Your task to perform on an android device: Open Youtube and go to the subscriptions tab Image 0: 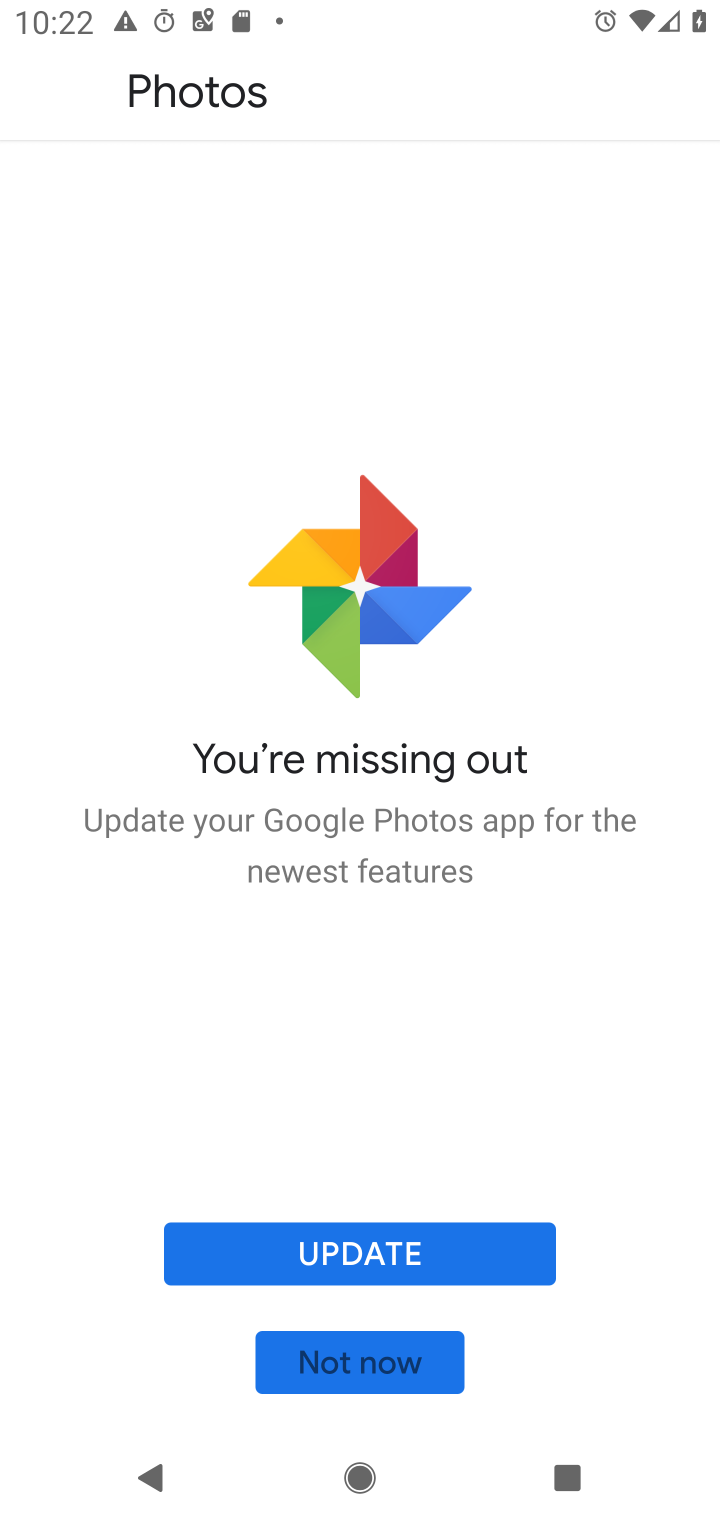
Step 0: press home button
Your task to perform on an android device: Open Youtube and go to the subscriptions tab Image 1: 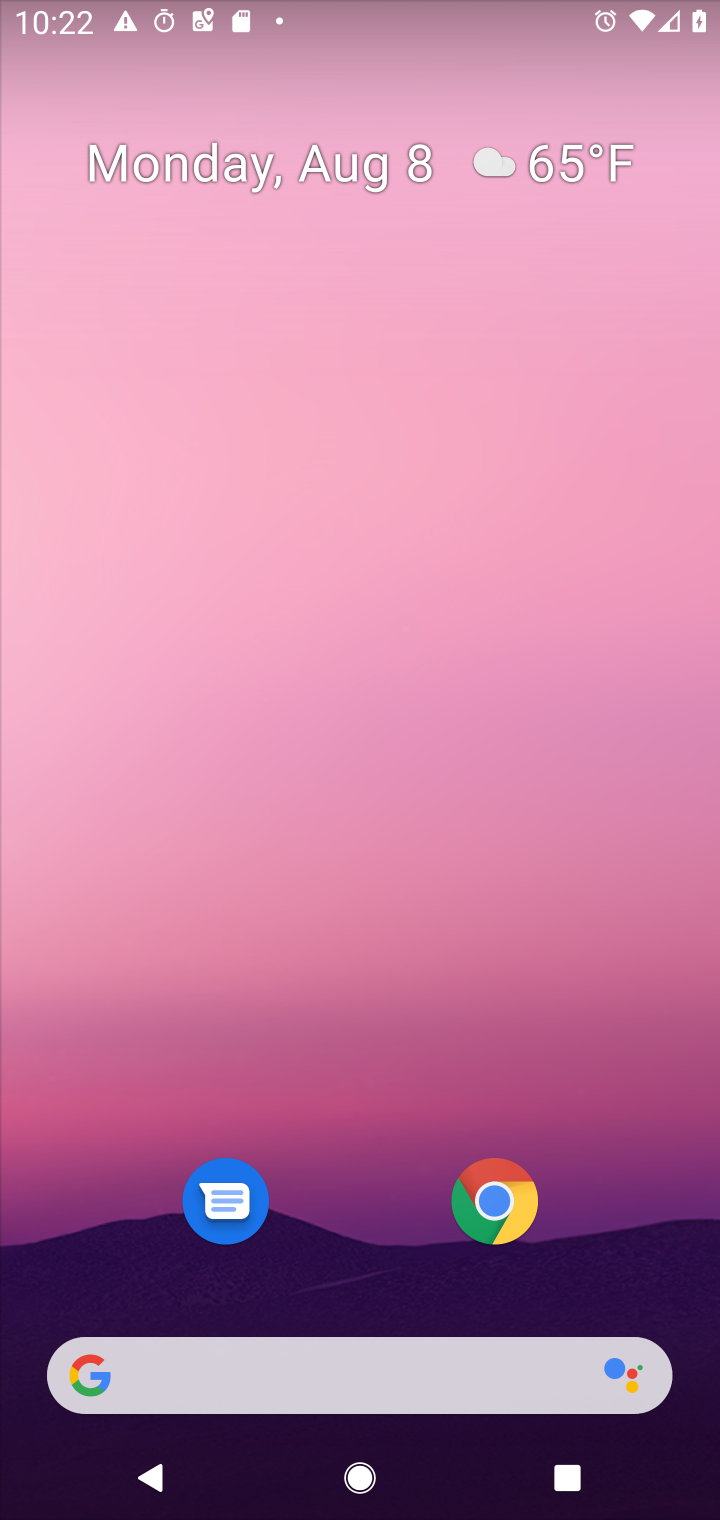
Step 1: drag from (588, 1272) to (621, 364)
Your task to perform on an android device: Open Youtube and go to the subscriptions tab Image 2: 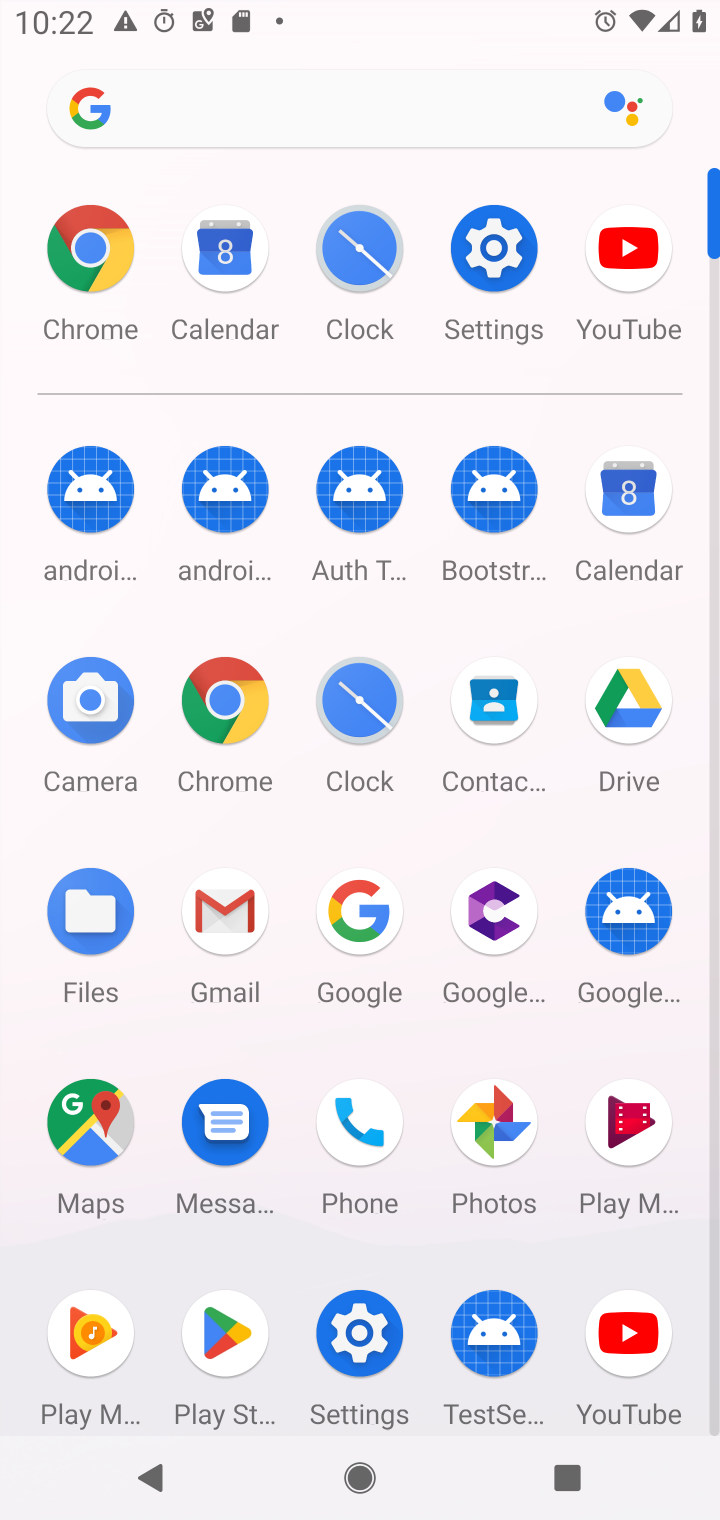
Step 2: click (632, 1322)
Your task to perform on an android device: Open Youtube and go to the subscriptions tab Image 3: 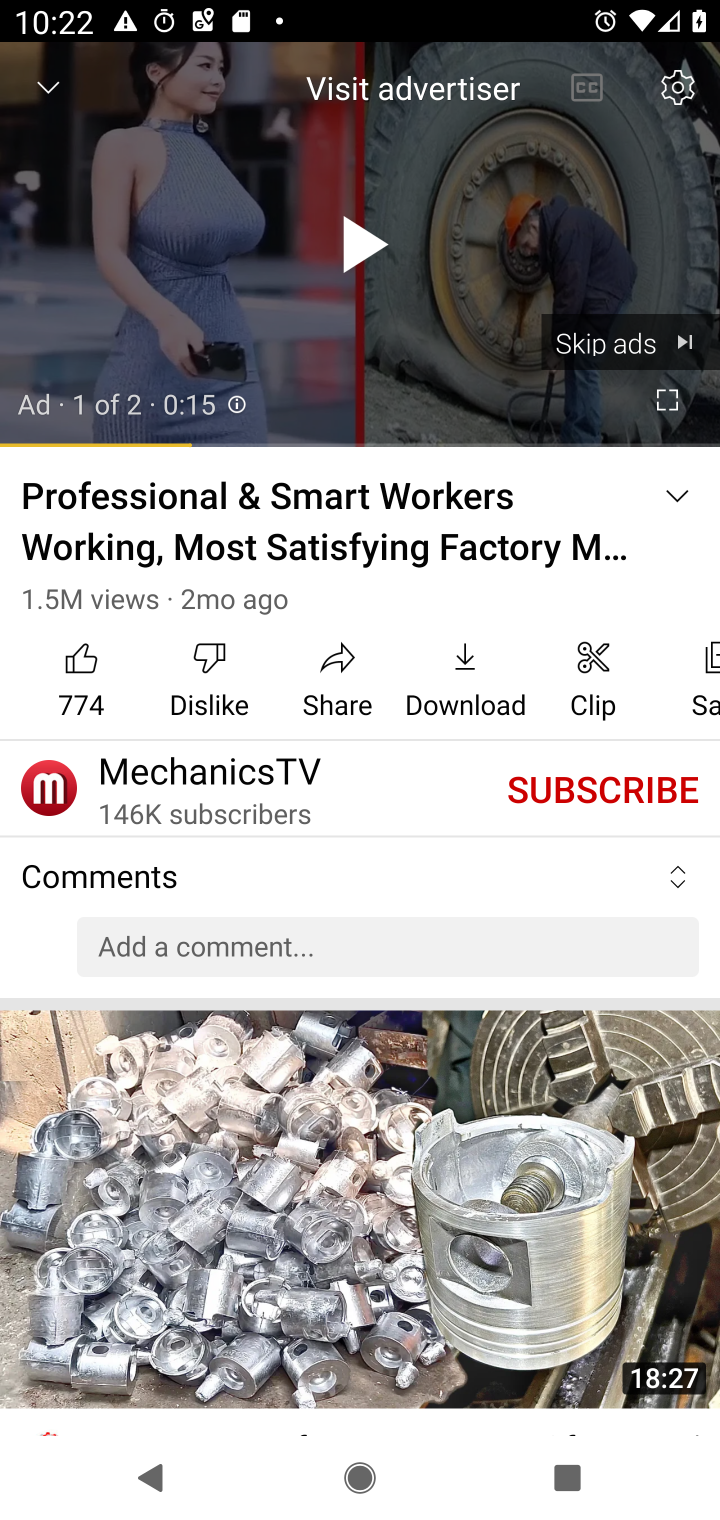
Step 3: press back button
Your task to perform on an android device: Open Youtube and go to the subscriptions tab Image 4: 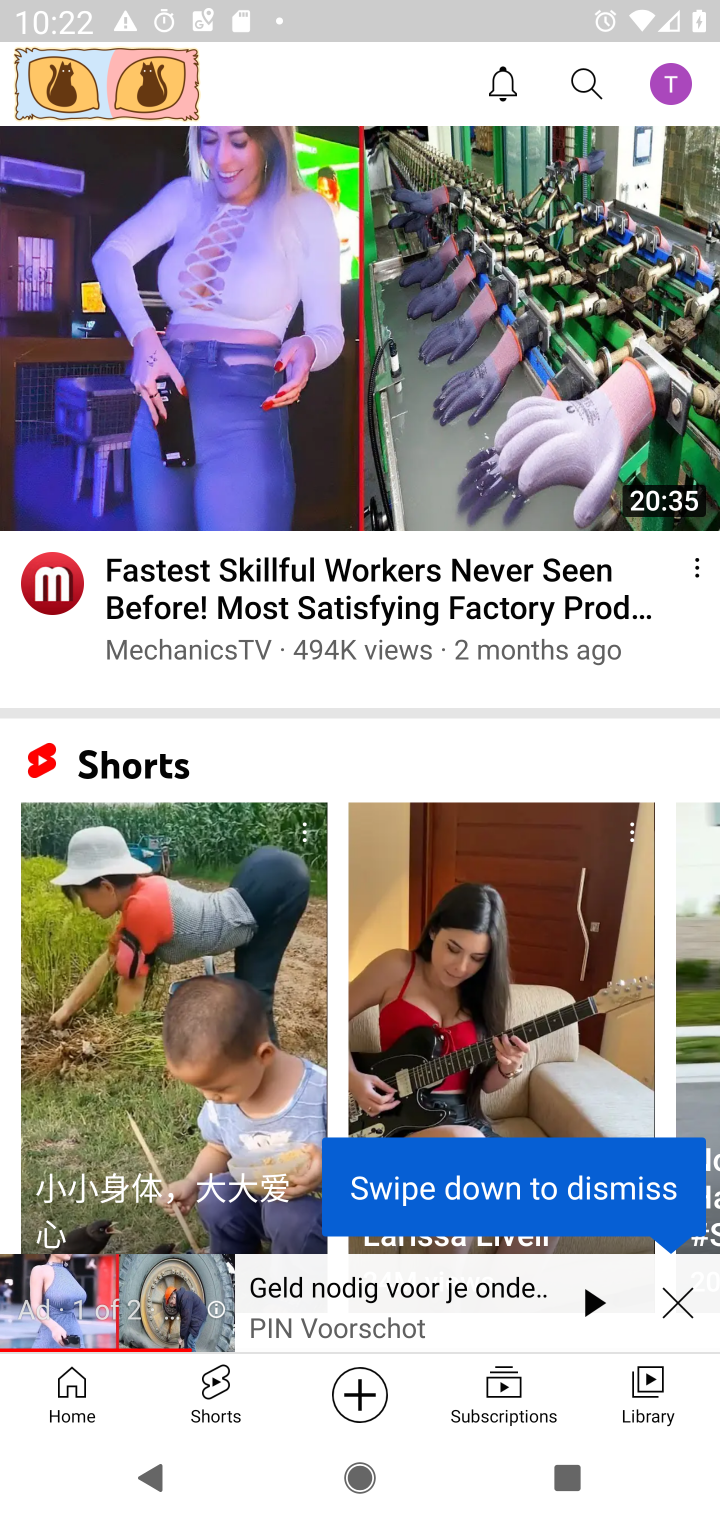
Step 4: click (485, 1399)
Your task to perform on an android device: Open Youtube and go to the subscriptions tab Image 5: 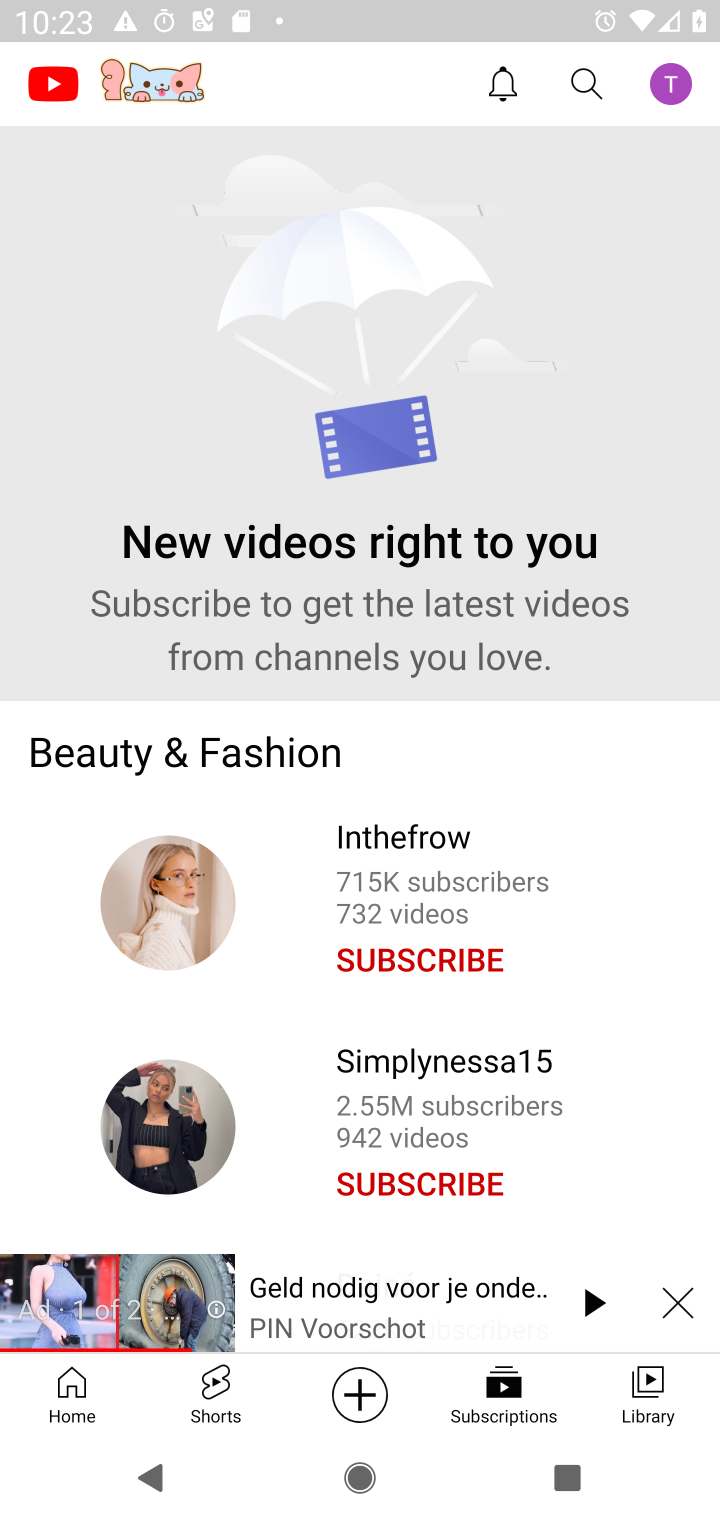
Step 5: task complete